Your task to perform on an android device: What's the weather going to be this weekend? Image 0: 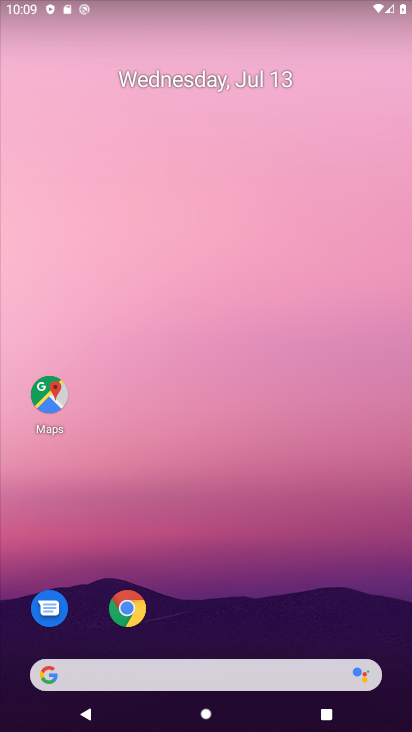
Step 0: press home button
Your task to perform on an android device: What's the weather going to be this weekend? Image 1: 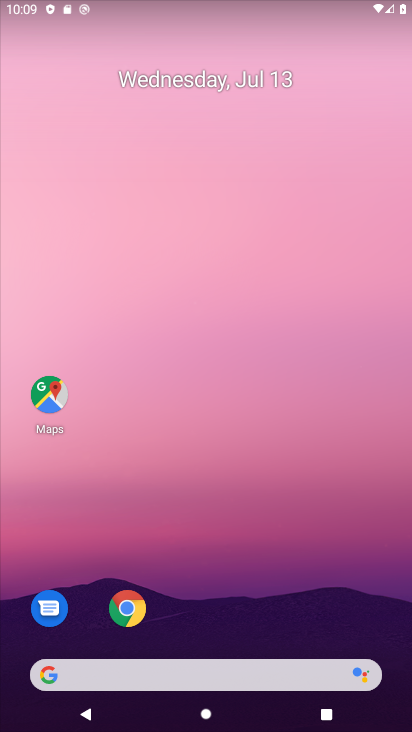
Step 1: click (49, 676)
Your task to perform on an android device: What's the weather going to be this weekend? Image 2: 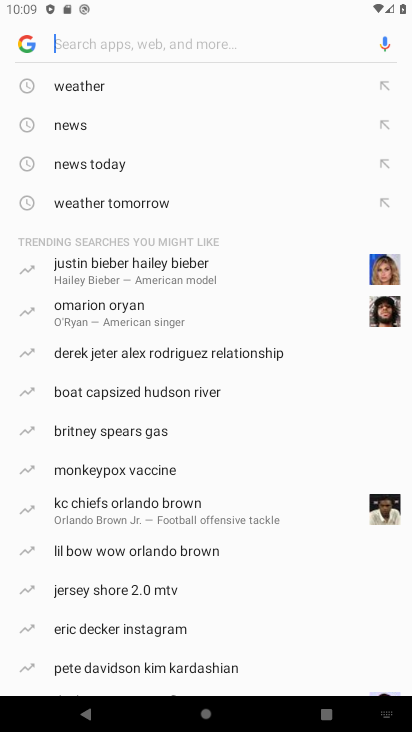
Step 2: type "weather going to be this weekend"
Your task to perform on an android device: What's the weather going to be this weekend? Image 3: 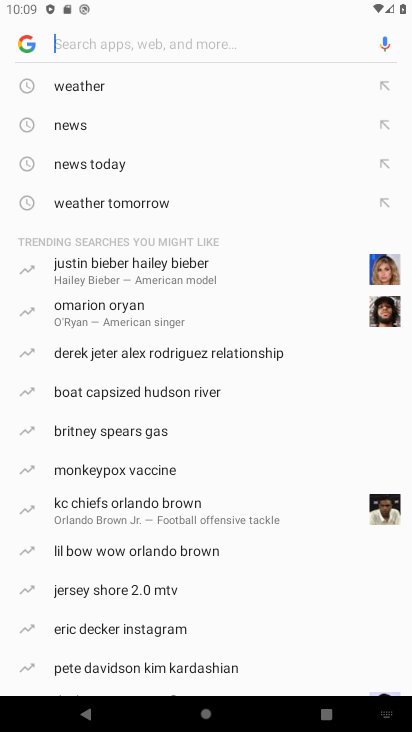
Step 3: click (112, 46)
Your task to perform on an android device: What's the weather going to be this weekend? Image 4: 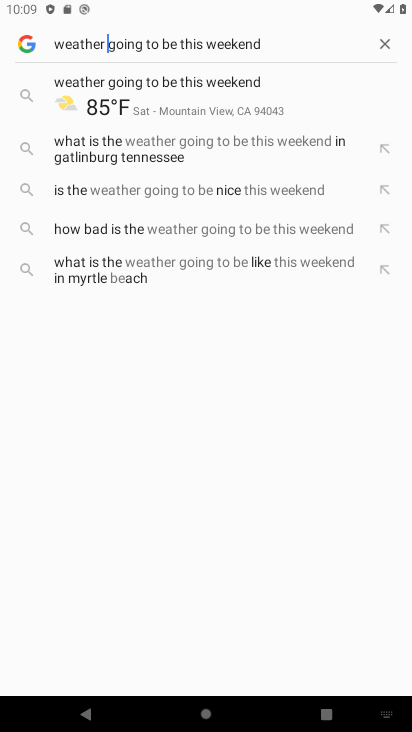
Step 4: press enter
Your task to perform on an android device: What's the weather going to be this weekend? Image 5: 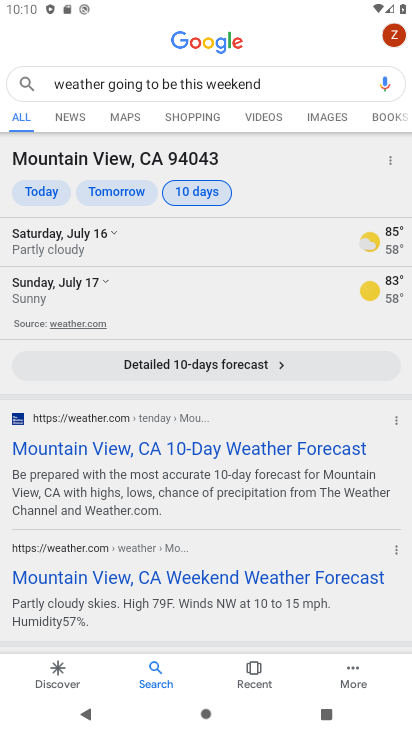
Step 5: task complete